Your task to perform on an android device: change keyboard looks Image 0: 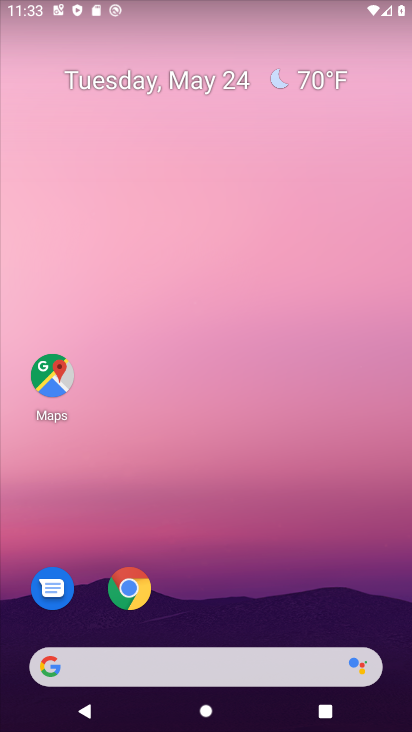
Step 0: press home button
Your task to perform on an android device: change keyboard looks Image 1: 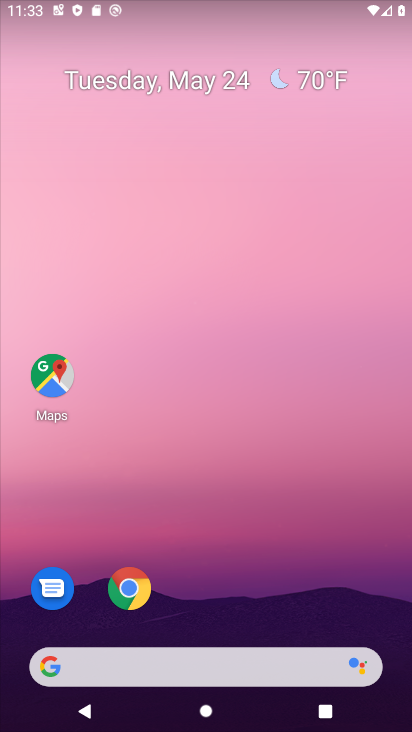
Step 1: drag from (210, 629) to (219, 67)
Your task to perform on an android device: change keyboard looks Image 2: 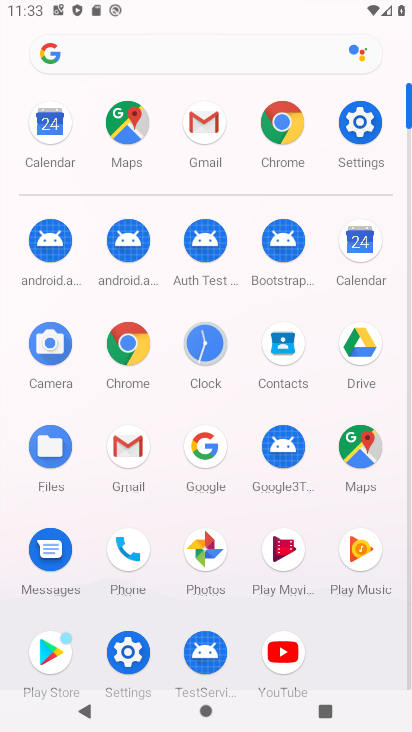
Step 2: click (358, 115)
Your task to perform on an android device: change keyboard looks Image 3: 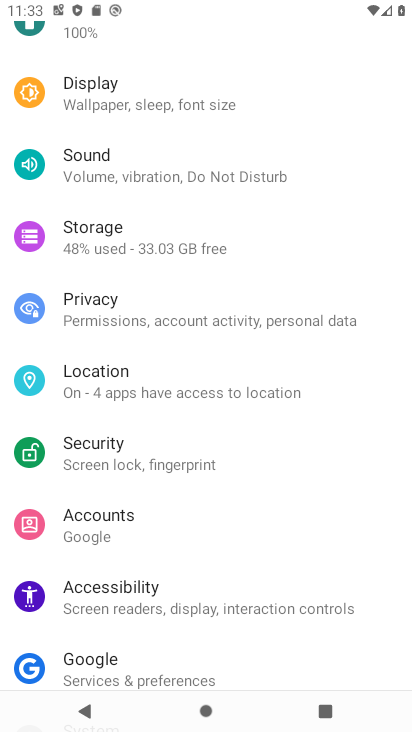
Step 3: drag from (195, 643) to (187, 89)
Your task to perform on an android device: change keyboard looks Image 4: 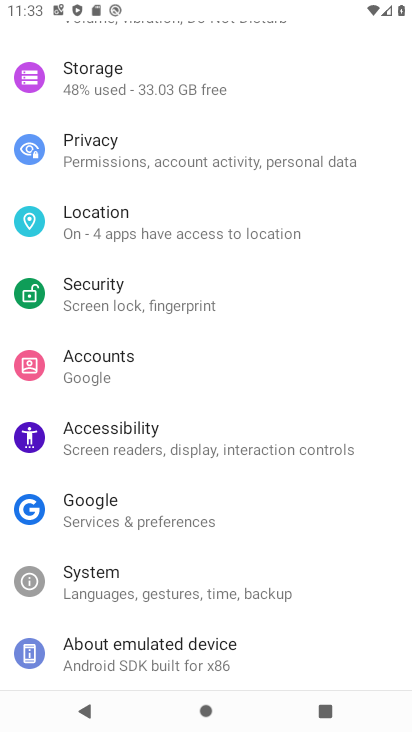
Step 4: click (133, 569)
Your task to perform on an android device: change keyboard looks Image 5: 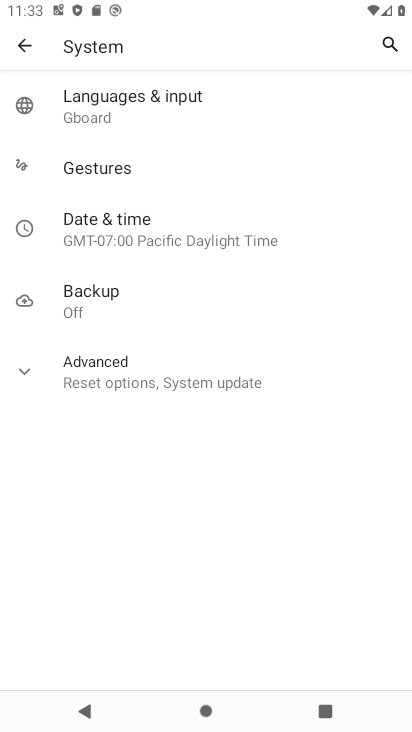
Step 5: click (21, 364)
Your task to perform on an android device: change keyboard looks Image 6: 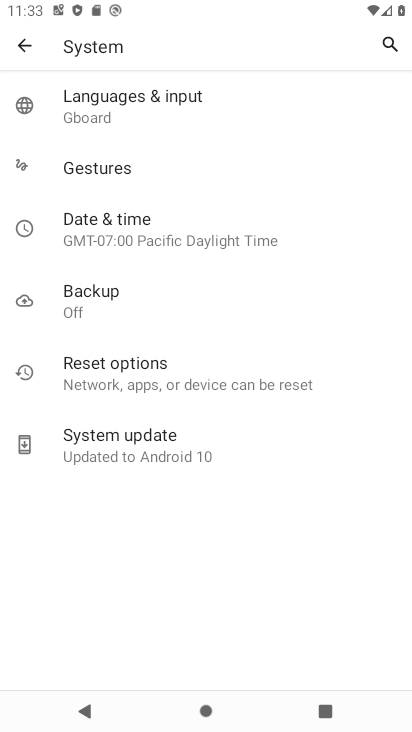
Step 6: click (70, 104)
Your task to perform on an android device: change keyboard looks Image 7: 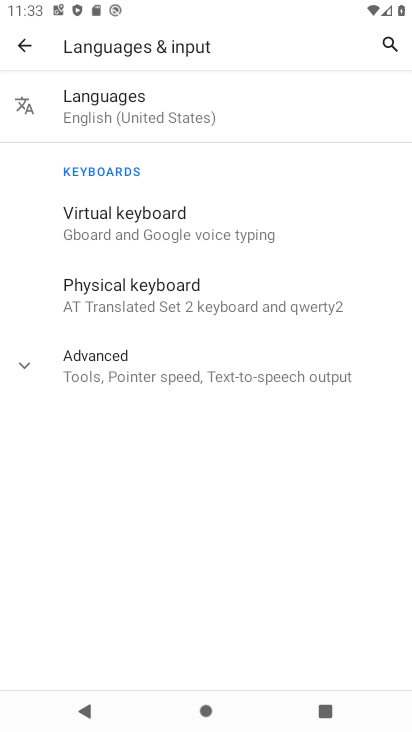
Step 7: click (196, 209)
Your task to perform on an android device: change keyboard looks Image 8: 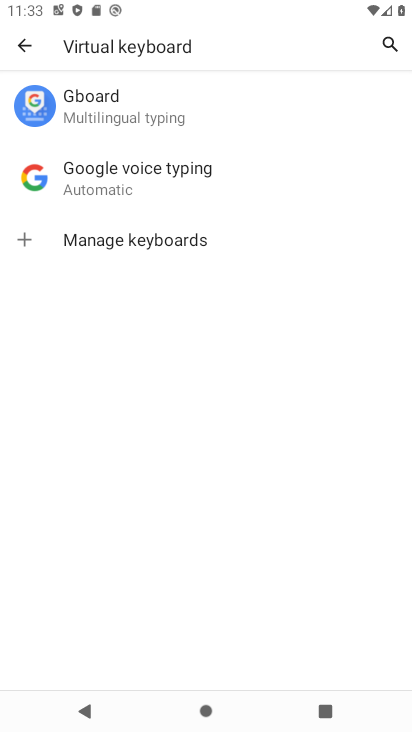
Step 8: click (140, 92)
Your task to perform on an android device: change keyboard looks Image 9: 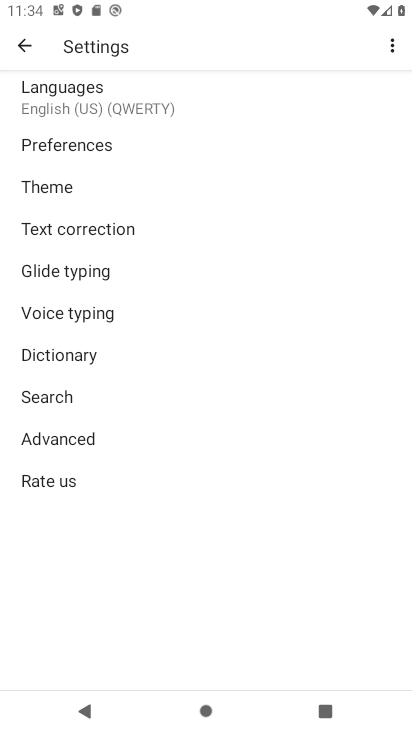
Step 9: click (87, 182)
Your task to perform on an android device: change keyboard looks Image 10: 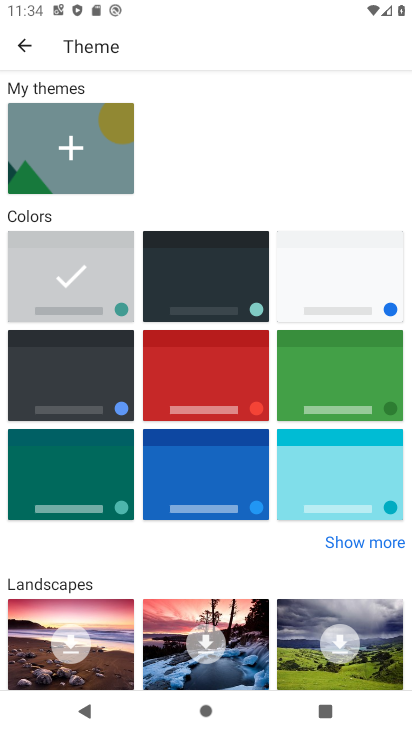
Step 10: click (198, 367)
Your task to perform on an android device: change keyboard looks Image 11: 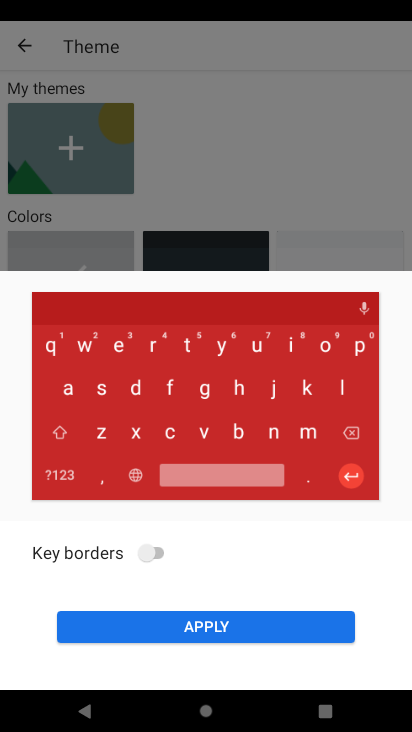
Step 11: click (209, 621)
Your task to perform on an android device: change keyboard looks Image 12: 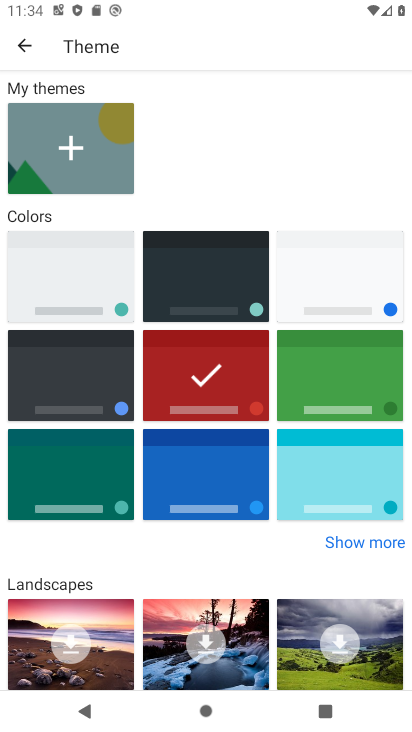
Step 12: task complete